Your task to perform on an android device: Search for apple airpods on amazon, select the first entry, and add it to the cart. Image 0: 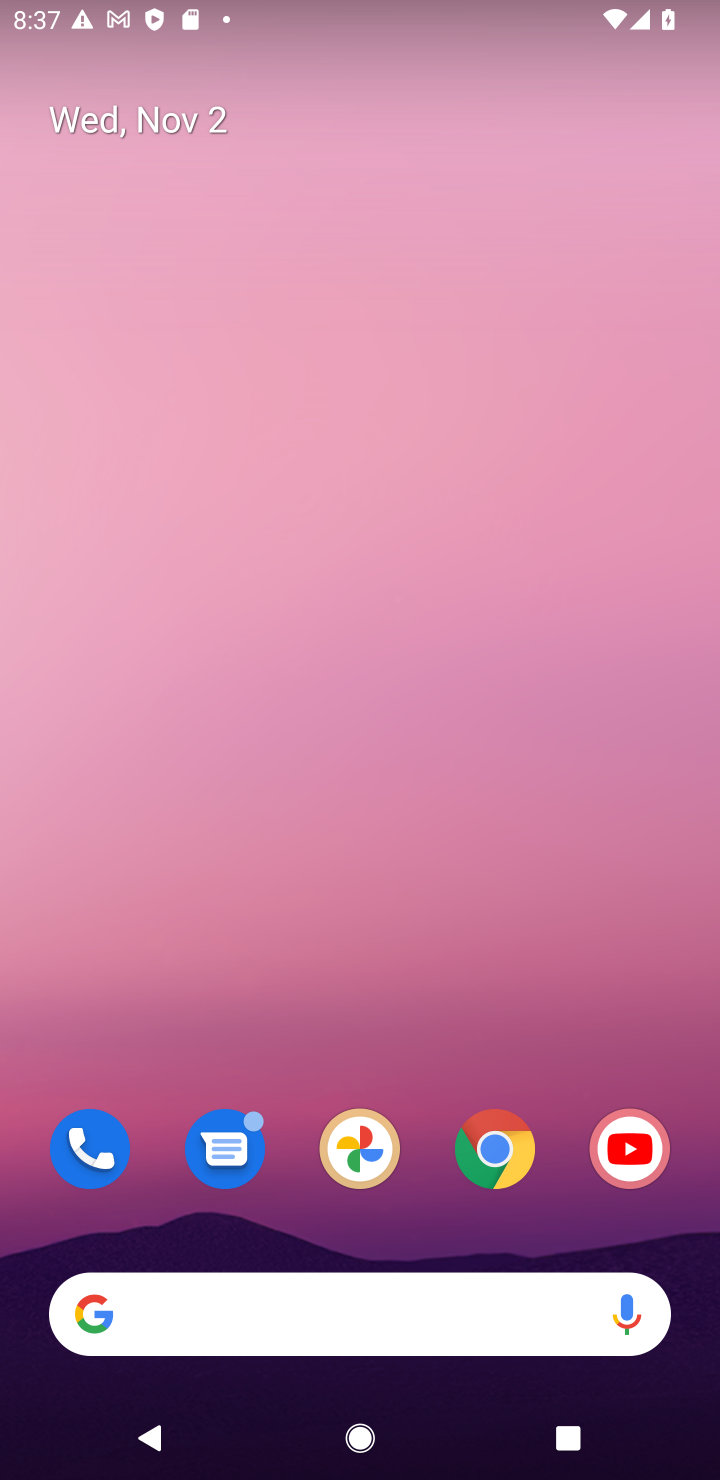
Step 0: drag from (390, 1263) to (491, 120)
Your task to perform on an android device: Search for apple airpods on amazon, select the first entry, and add it to the cart. Image 1: 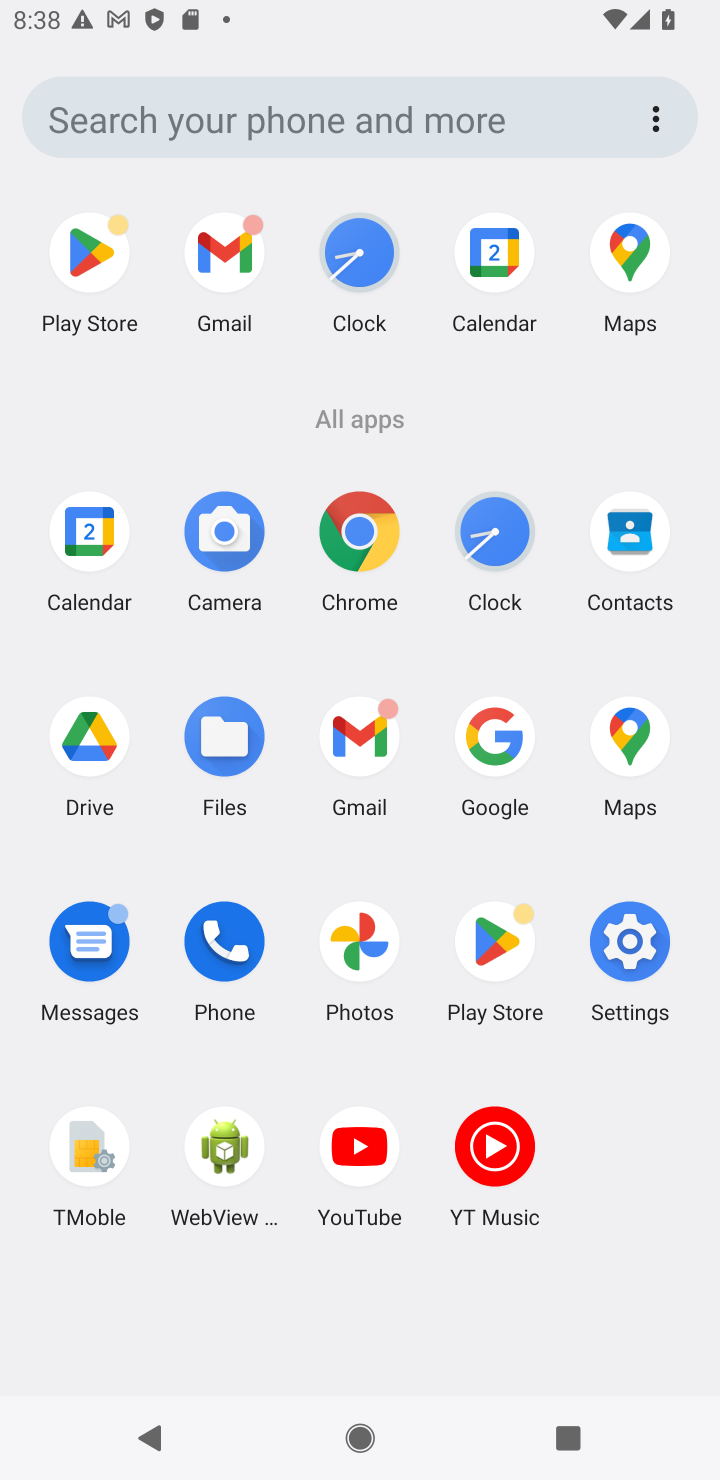
Step 1: click (500, 724)
Your task to perform on an android device: Search for apple airpods on amazon, select the first entry, and add it to the cart. Image 2: 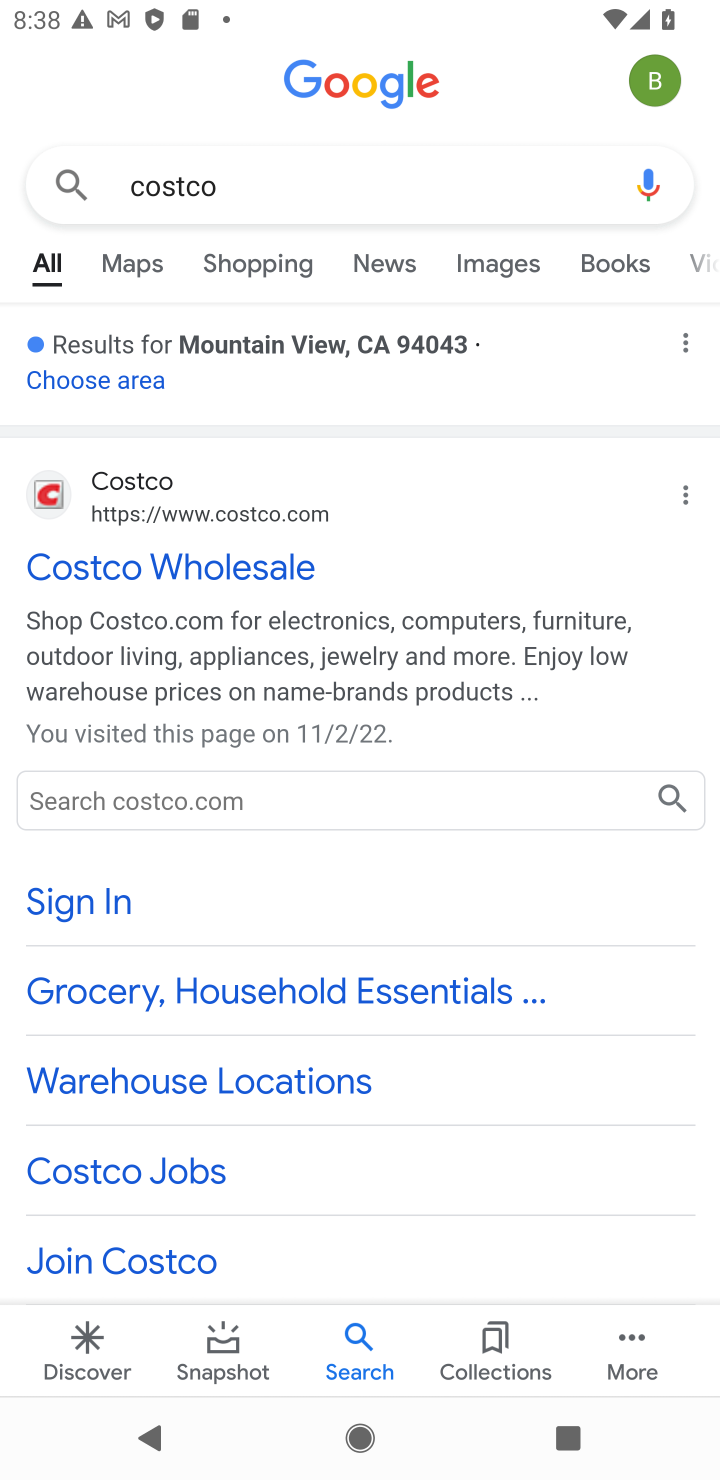
Step 2: click (278, 215)
Your task to perform on an android device: Search for apple airpods on amazon, select the first entry, and add it to the cart. Image 3: 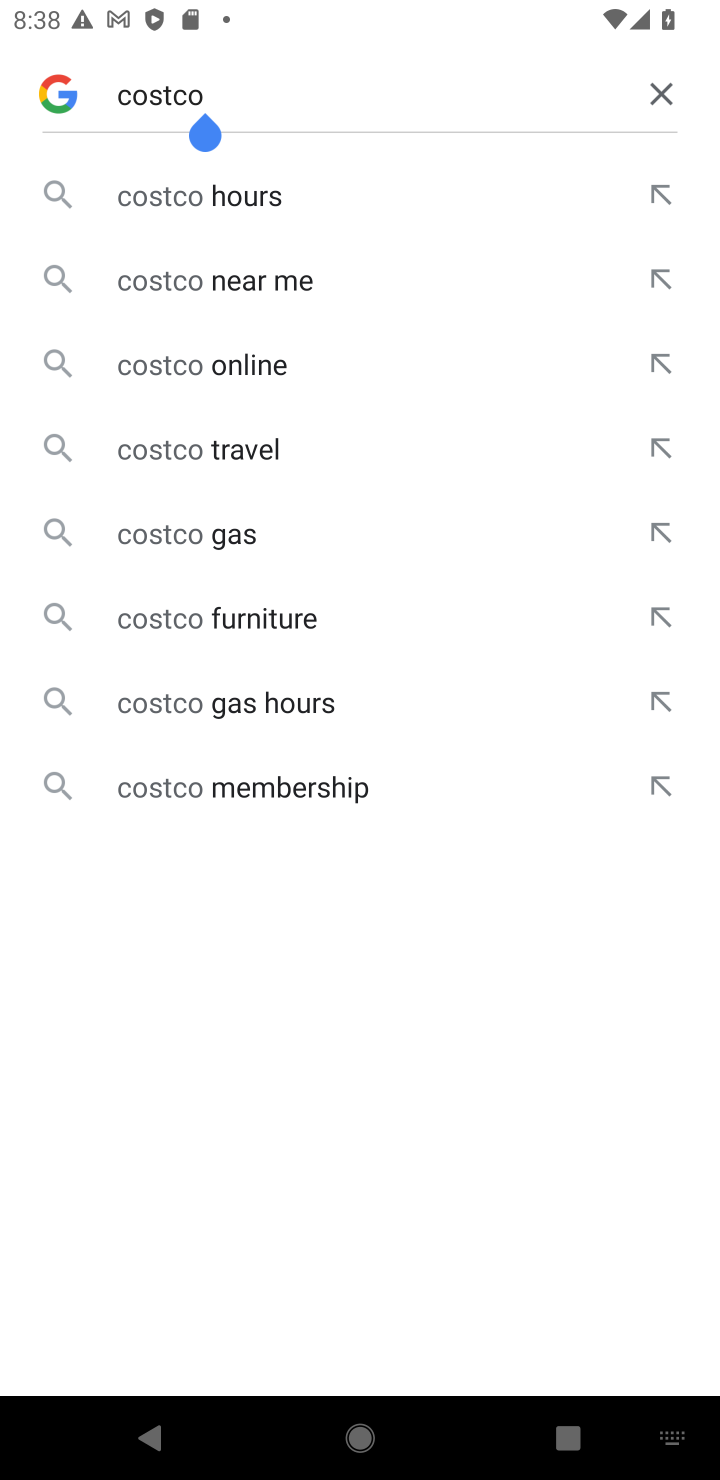
Step 3: click (657, 92)
Your task to perform on an android device: Search for apple airpods on amazon, select the first entry, and add it to the cart. Image 4: 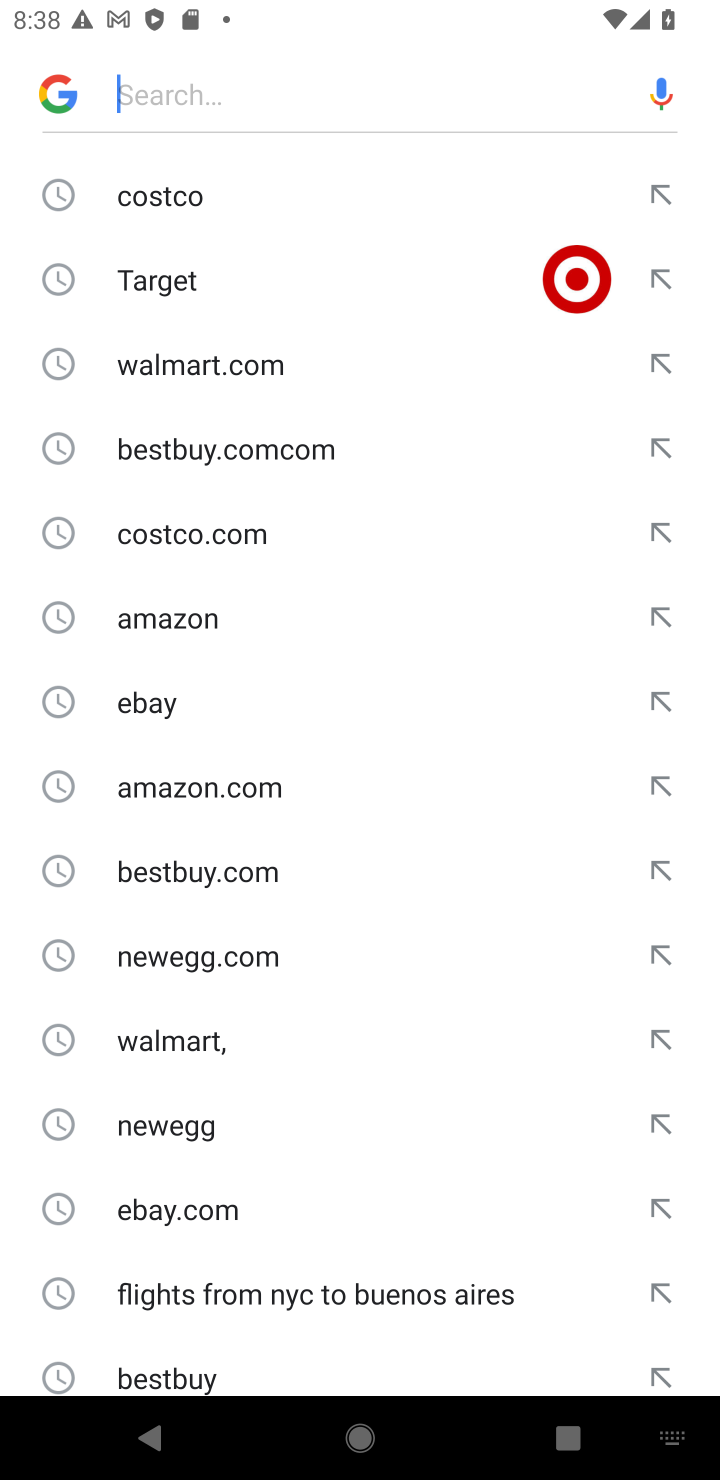
Step 4: type "amazon"
Your task to perform on an android device: Search for apple airpods on amazon, select the first entry, and add it to the cart. Image 5: 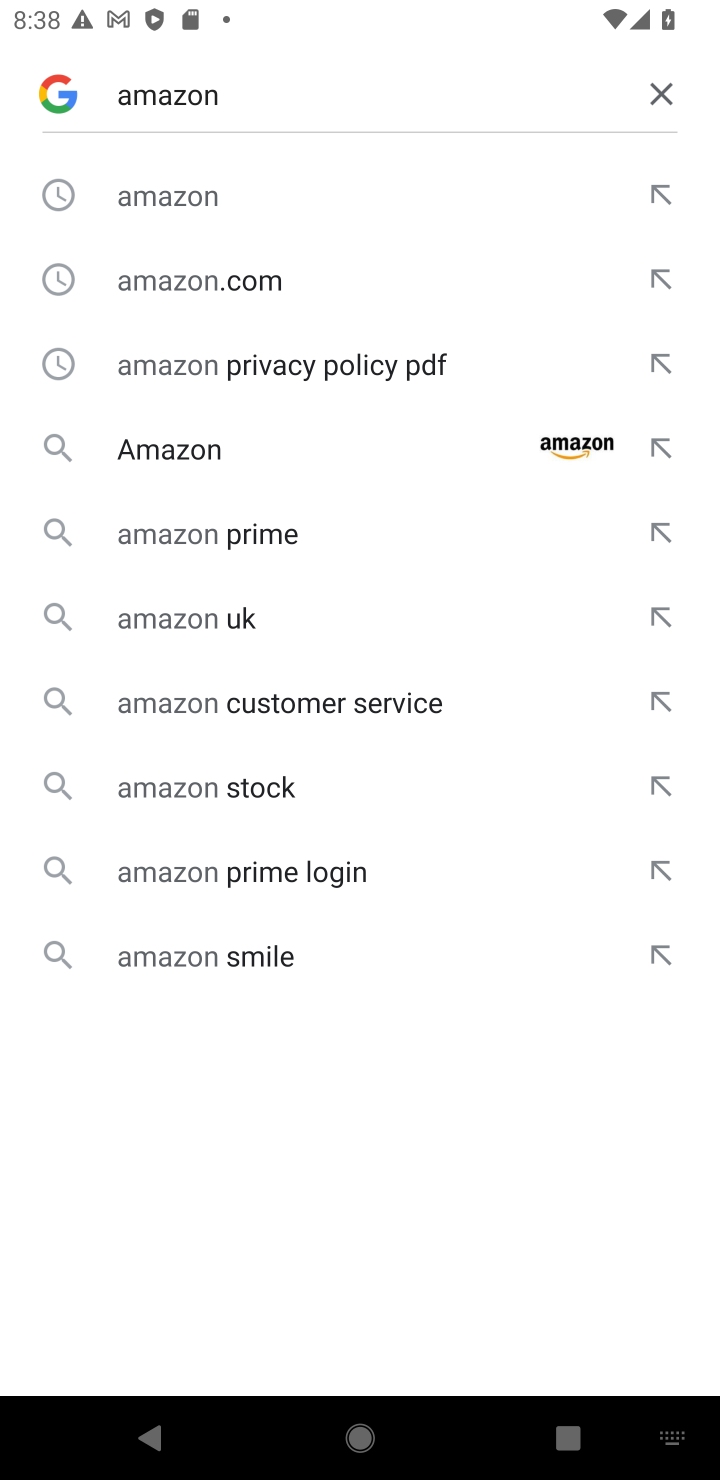
Step 5: click (203, 205)
Your task to perform on an android device: Search for apple airpods on amazon, select the first entry, and add it to the cart. Image 6: 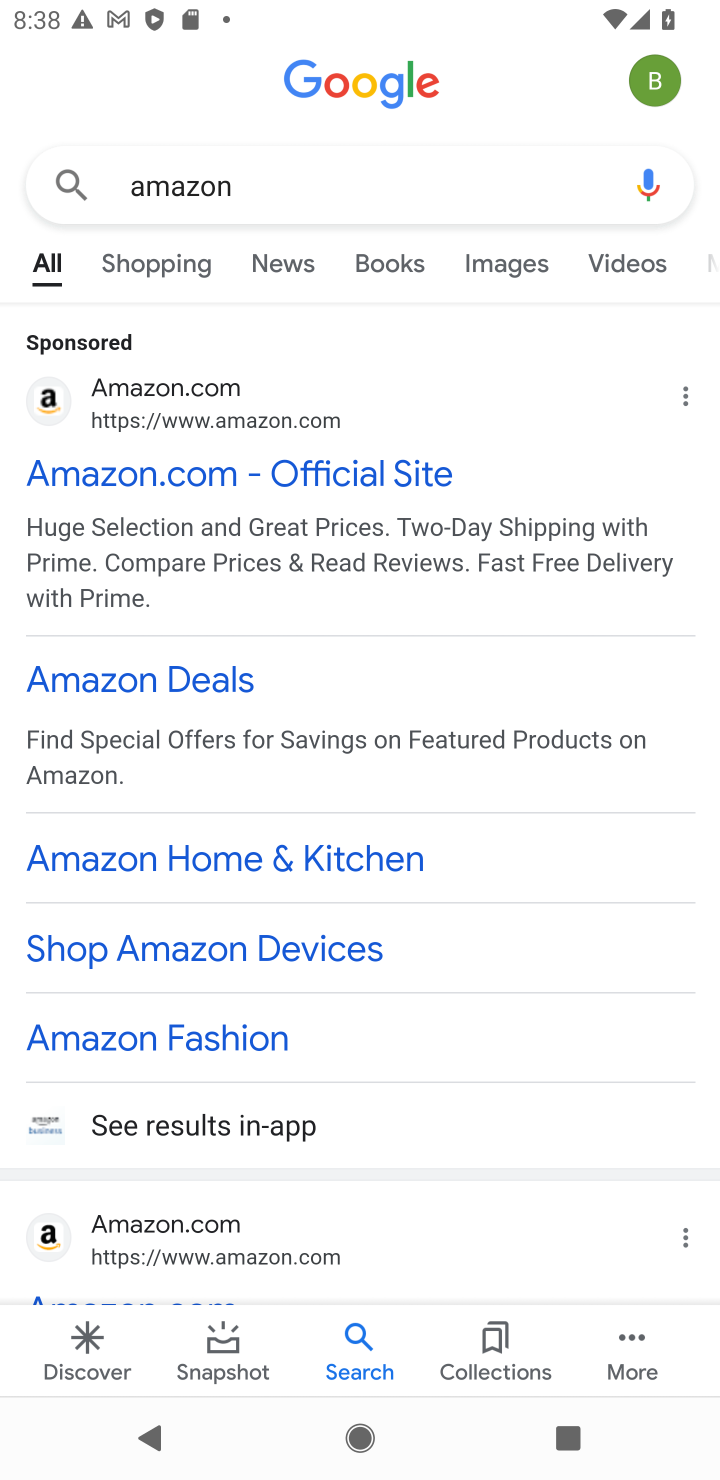
Step 6: click (294, 462)
Your task to perform on an android device: Search for apple airpods on amazon, select the first entry, and add it to the cart. Image 7: 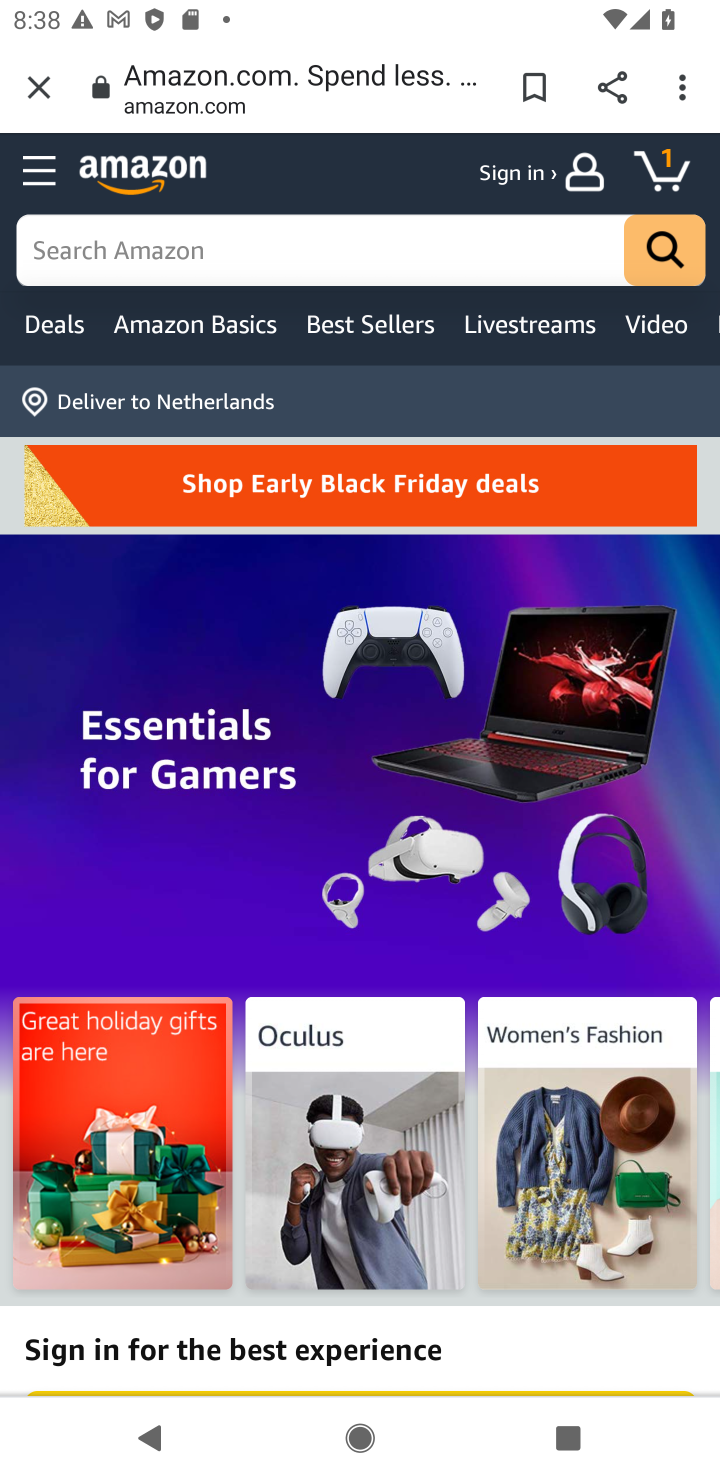
Step 7: click (367, 239)
Your task to perform on an android device: Search for apple airpods on amazon, select the first entry, and add it to the cart. Image 8: 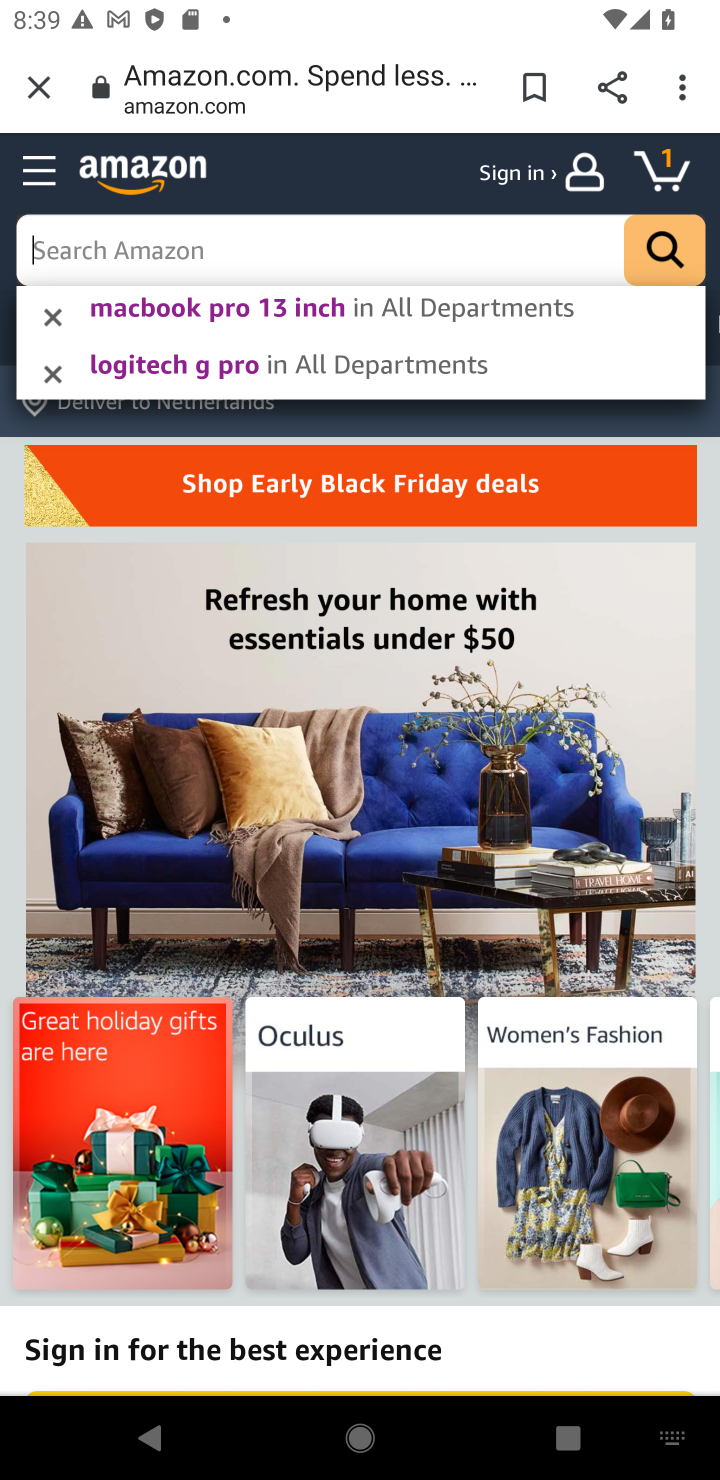
Step 8: type "apple airpods"
Your task to perform on an android device: Search for apple airpods on amazon, select the first entry, and add it to the cart. Image 9: 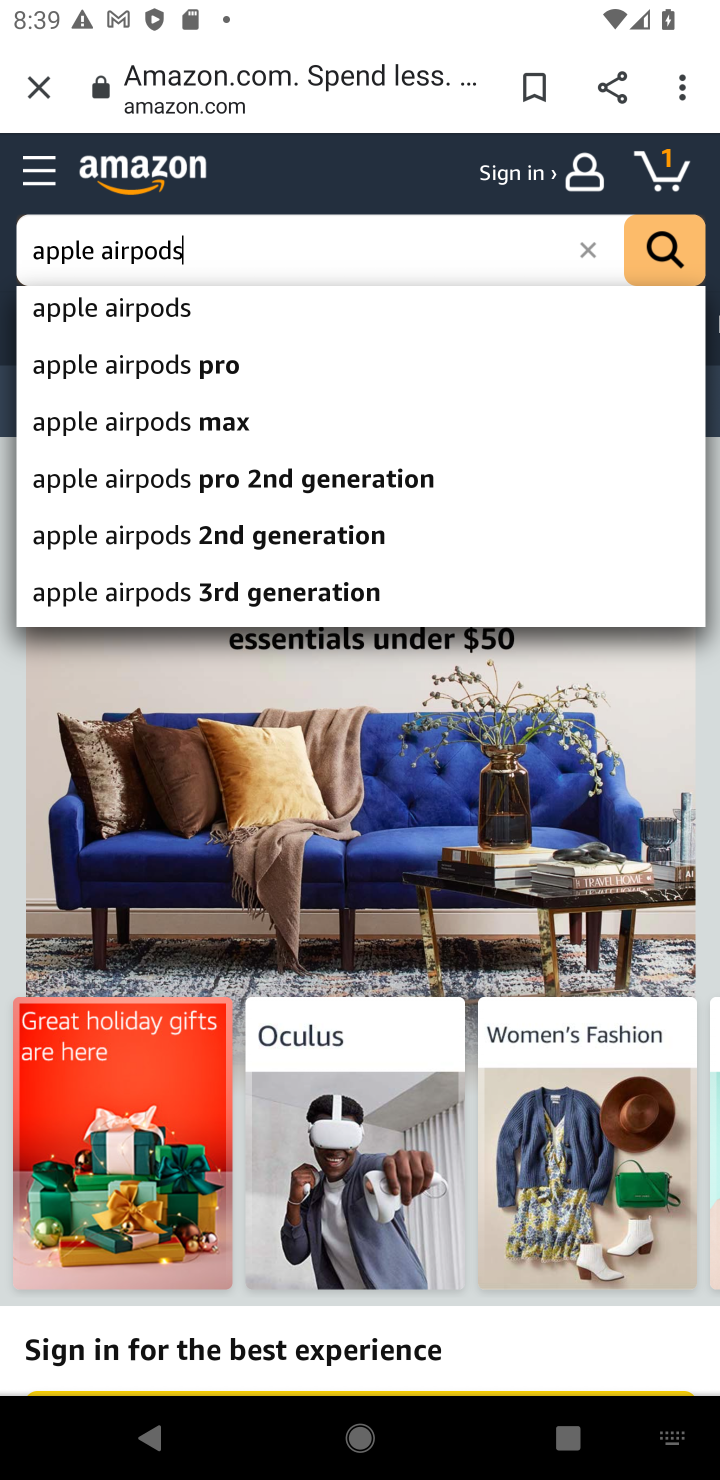
Step 9: click (131, 300)
Your task to perform on an android device: Search for apple airpods on amazon, select the first entry, and add it to the cart. Image 10: 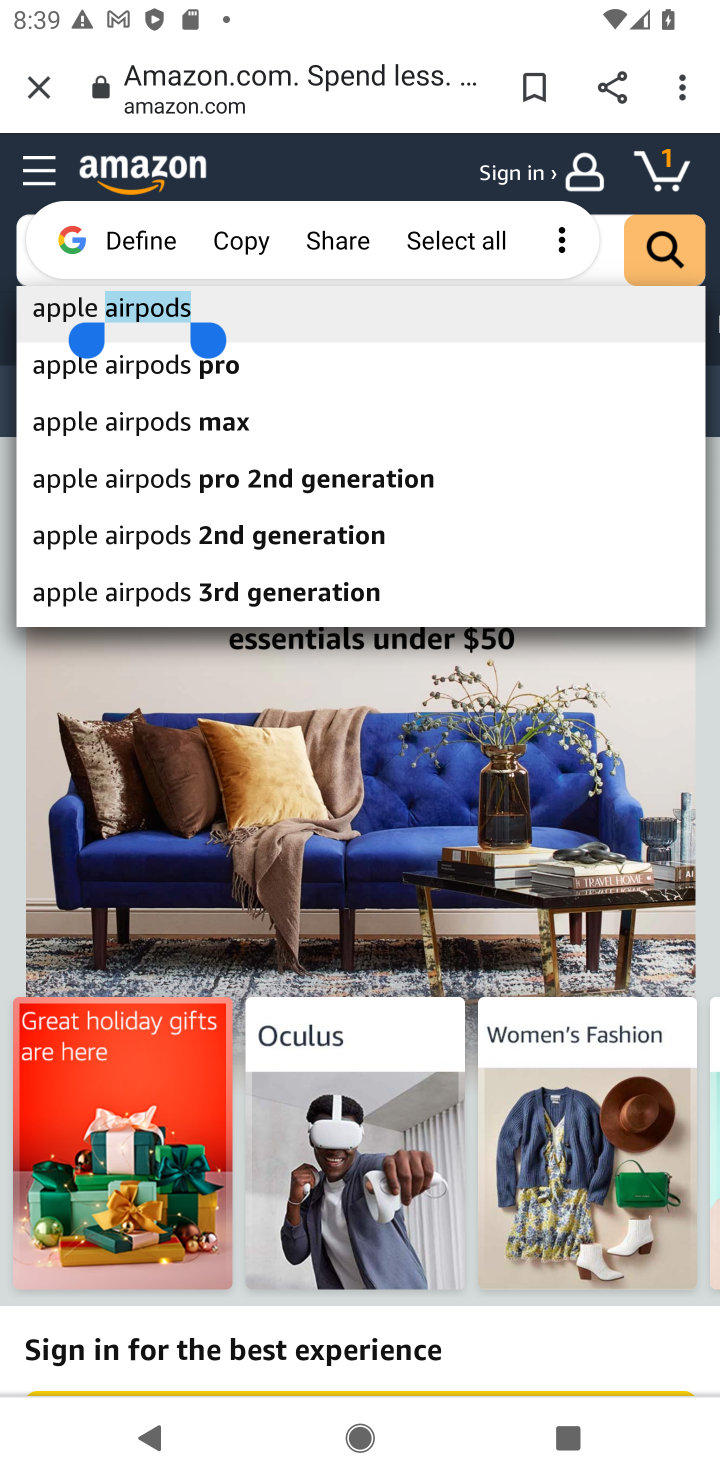
Step 10: click (153, 366)
Your task to perform on an android device: Search for apple airpods on amazon, select the first entry, and add it to the cart. Image 11: 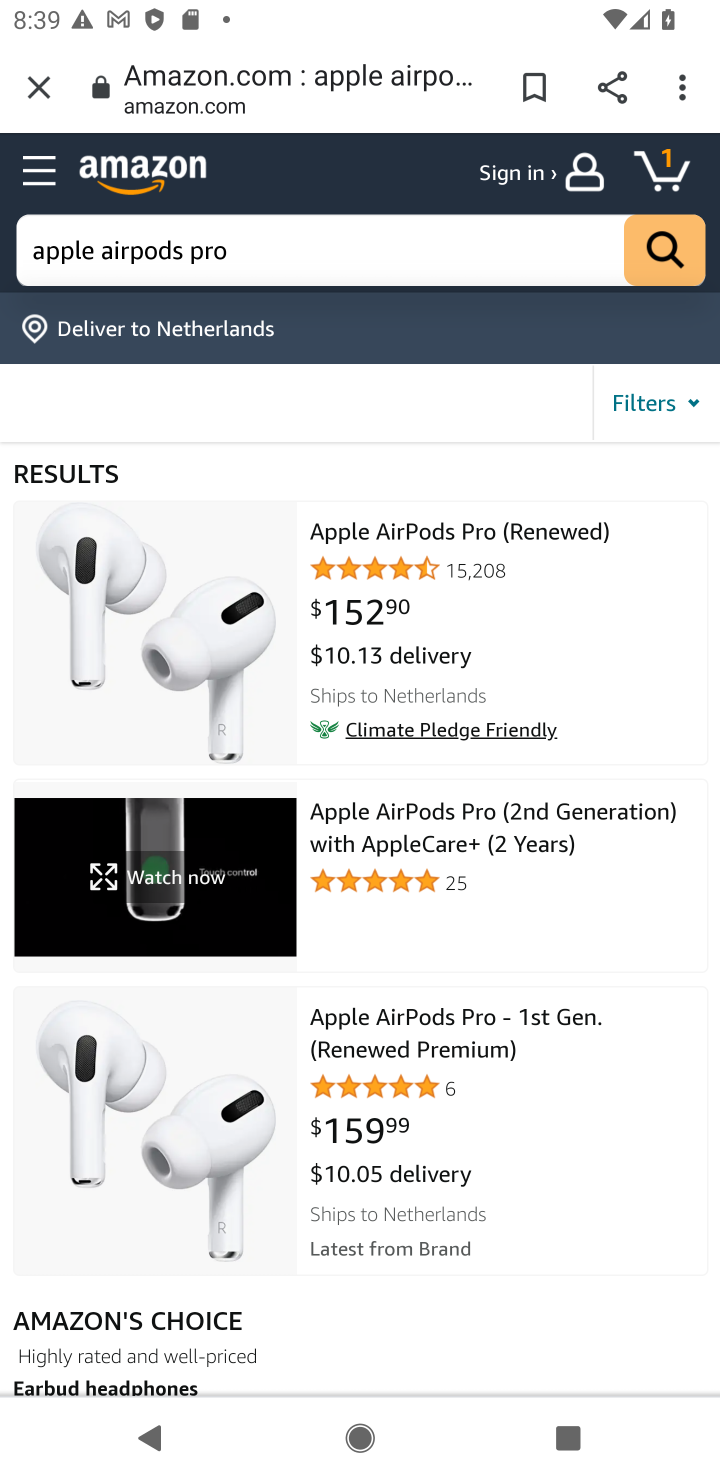
Step 11: click (540, 531)
Your task to perform on an android device: Search for apple airpods on amazon, select the first entry, and add it to the cart. Image 12: 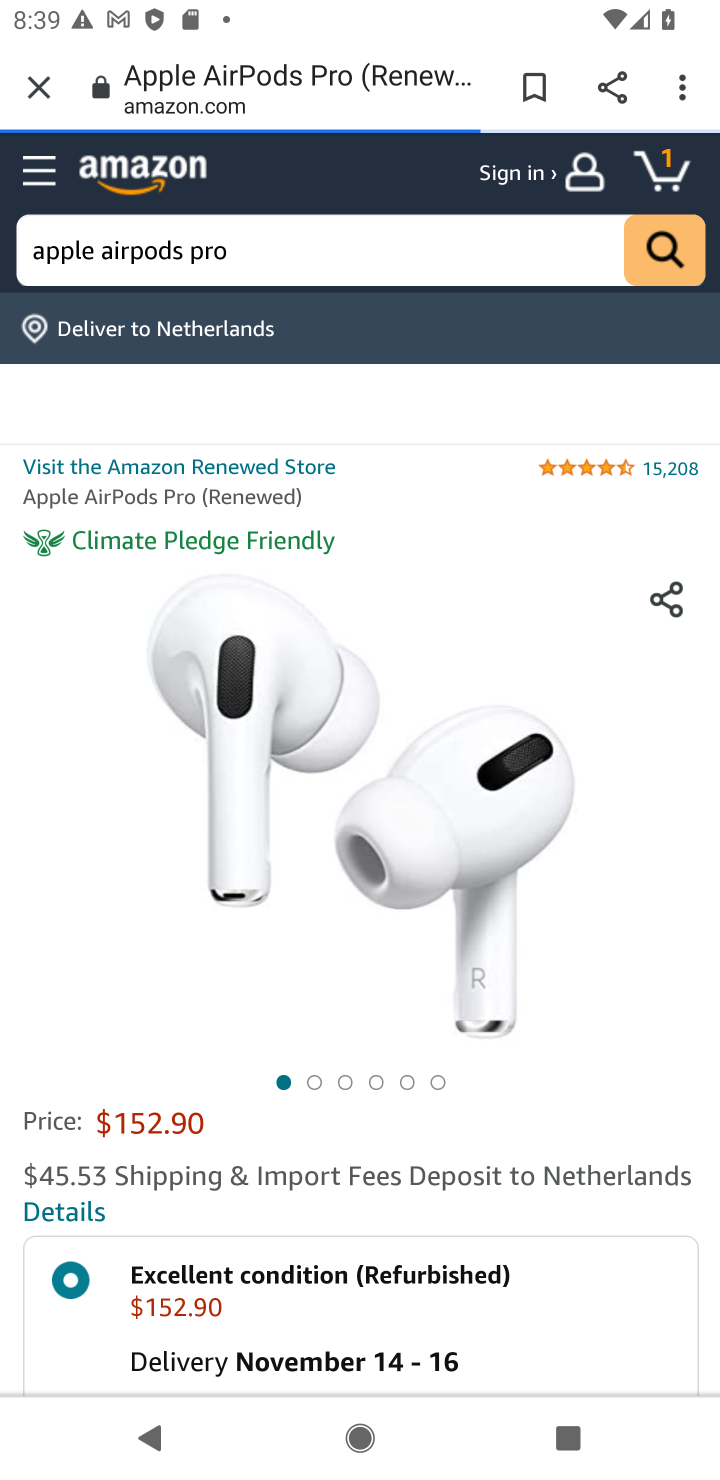
Step 12: drag from (346, 1330) to (321, 611)
Your task to perform on an android device: Search for apple airpods on amazon, select the first entry, and add it to the cart. Image 13: 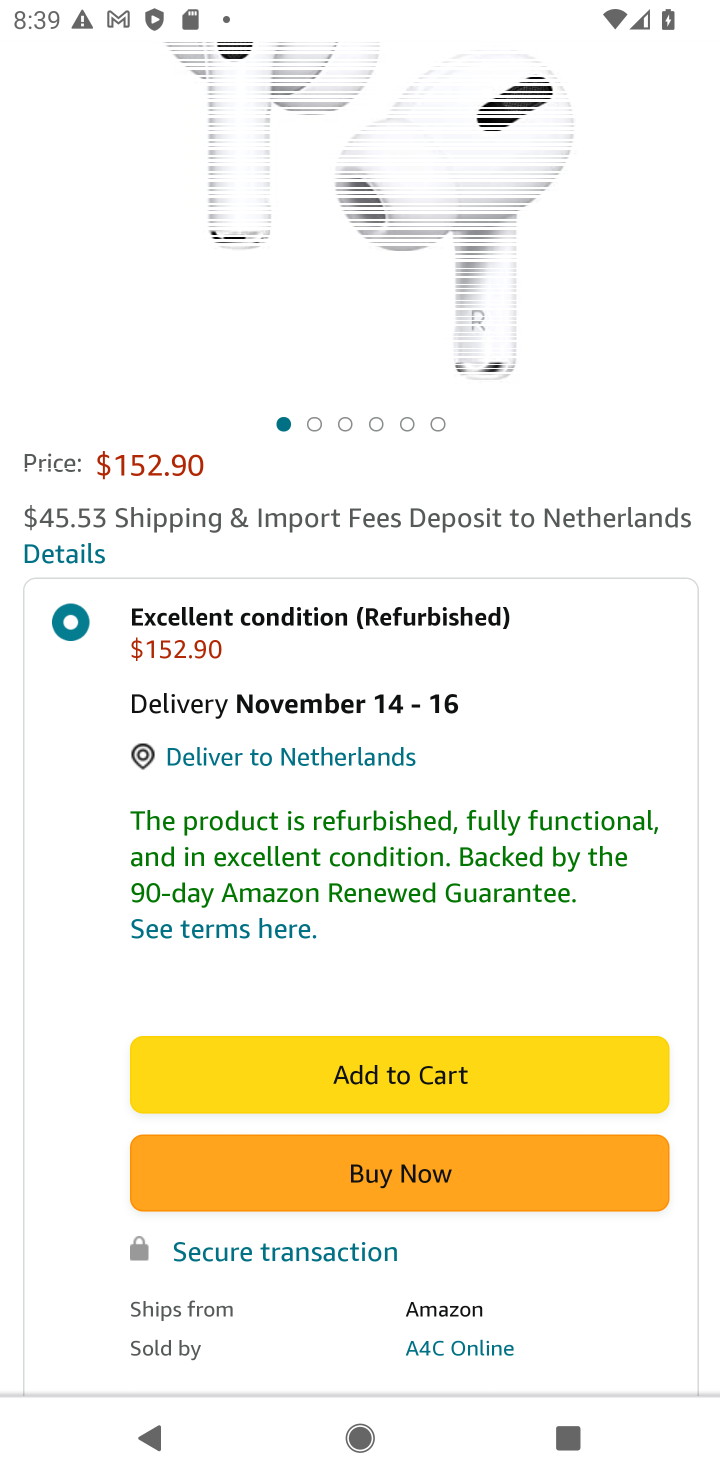
Step 13: click (414, 1052)
Your task to perform on an android device: Search for apple airpods on amazon, select the first entry, and add it to the cart. Image 14: 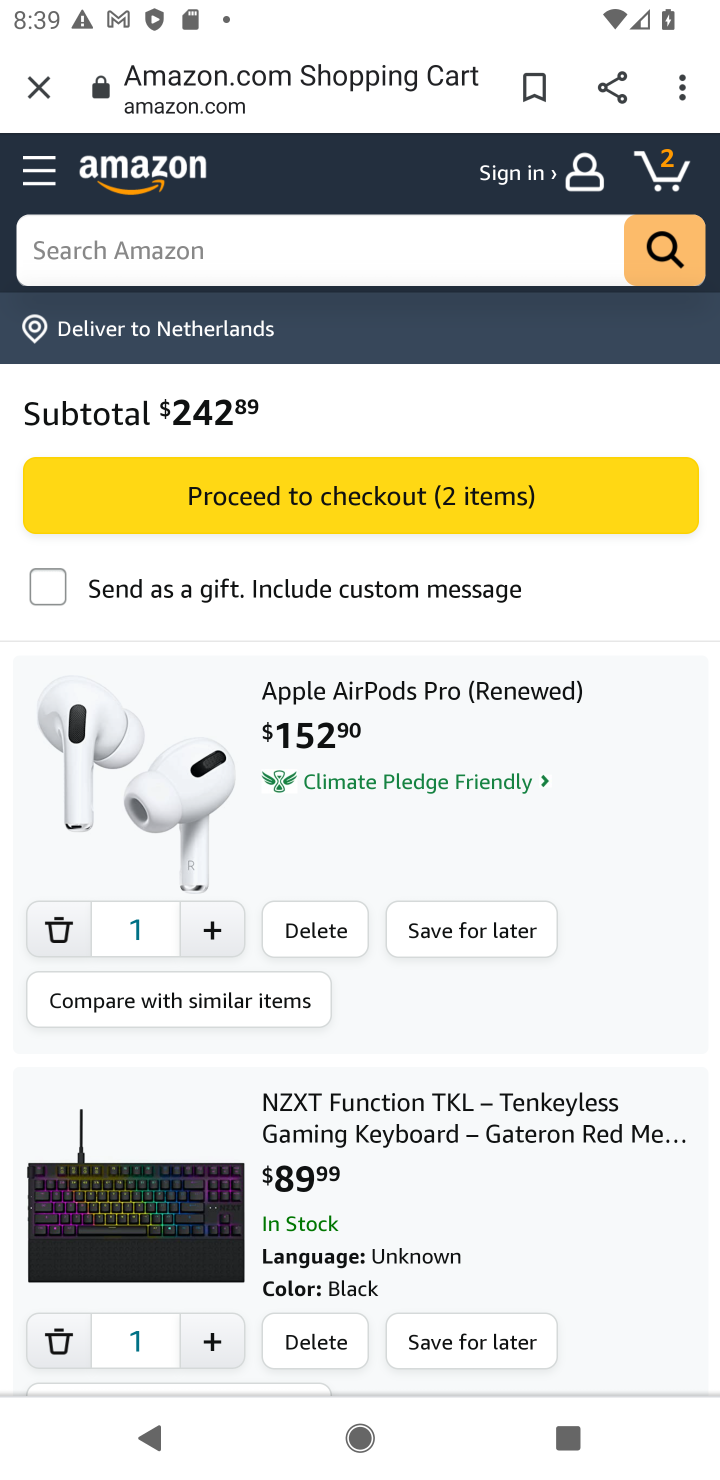
Step 14: task complete